Your task to perform on an android device: Go to network settings Image 0: 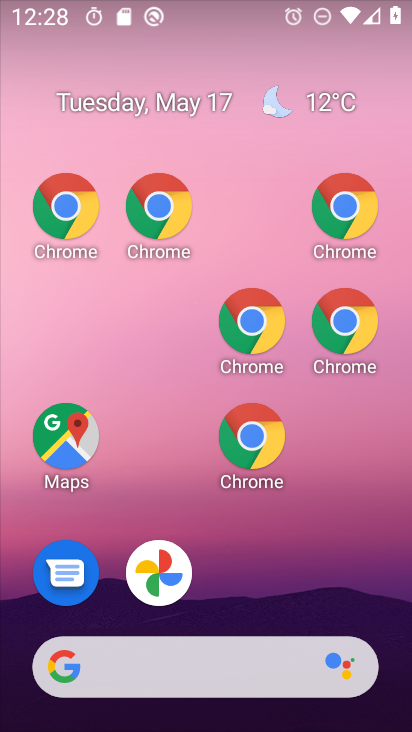
Step 0: click (238, 312)
Your task to perform on an android device: Go to network settings Image 1: 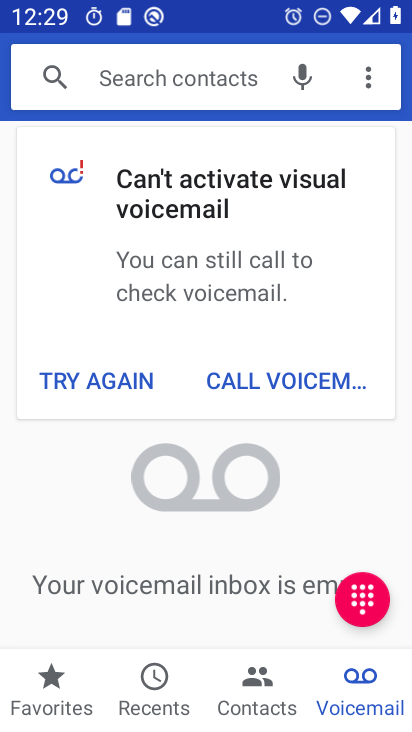
Step 1: press back button
Your task to perform on an android device: Go to network settings Image 2: 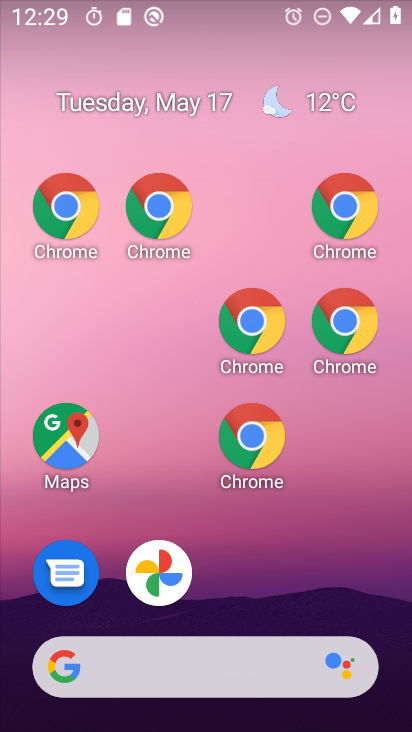
Step 2: drag from (262, 676) to (271, 220)
Your task to perform on an android device: Go to network settings Image 3: 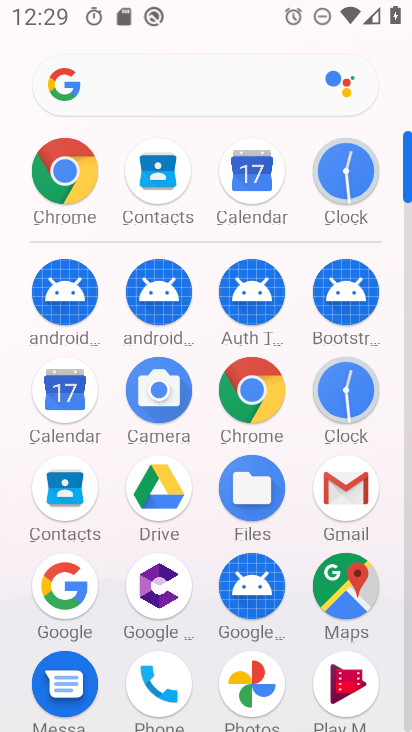
Step 3: drag from (266, 617) to (325, 438)
Your task to perform on an android device: Go to network settings Image 4: 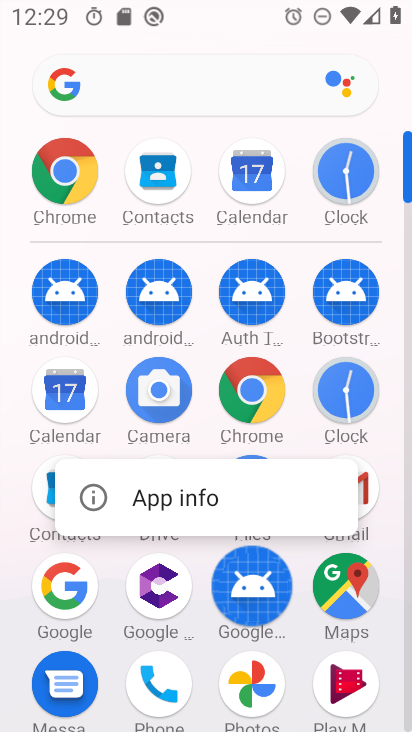
Step 4: drag from (290, 542) to (328, 320)
Your task to perform on an android device: Go to network settings Image 5: 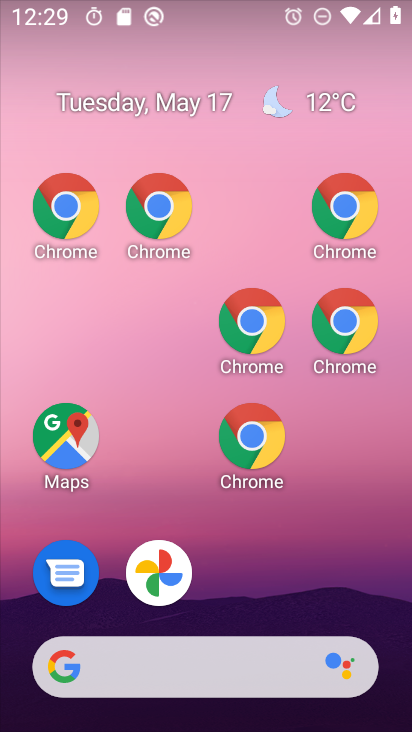
Step 5: drag from (298, 627) to (316, 139)
Your task to perform on an android device: Go to network settings Image 6: 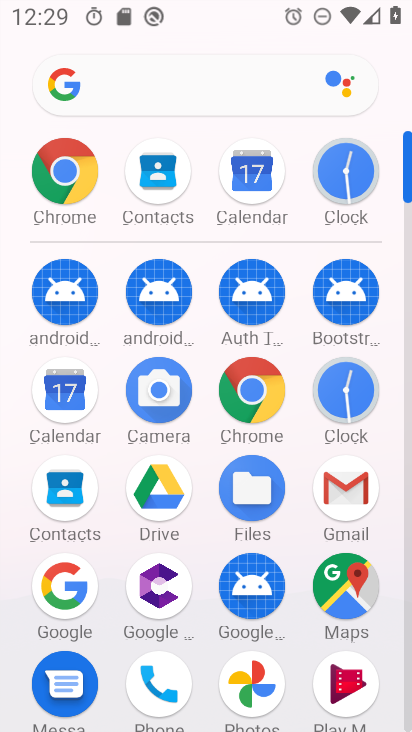
Step 6: drag from (300, 580) to (388, 230)
Your task to perform on an android device: Go to network settings Image 7: 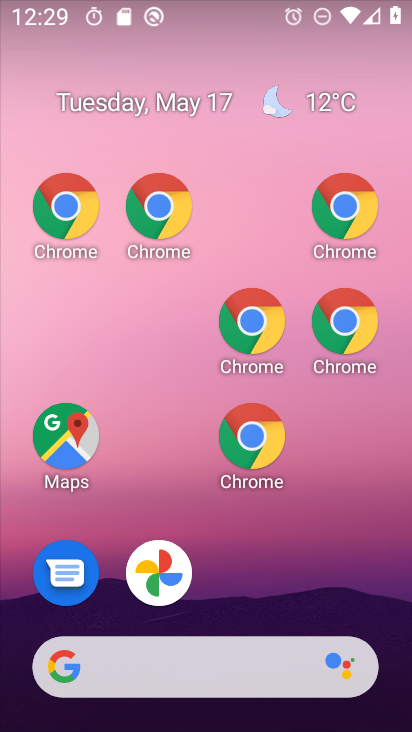
Step 7: drag from (304, 644) to (273, 178)
Your task to perform on an android device: Go to network settings Image 8: 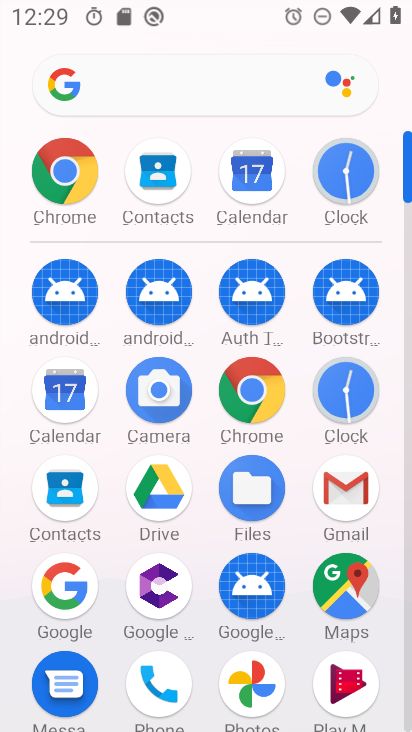
Step 8: drag from (254, 589) to (303, 91)
Your task to perform on an android device: Go to network settings Image 9: 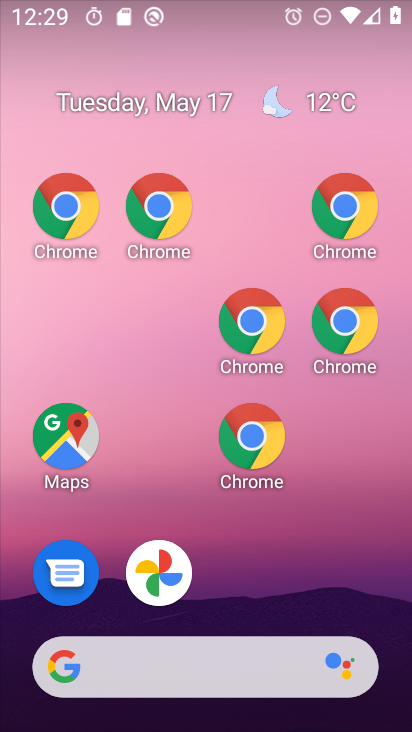
Step 9: drag from (276, 638) to (294, 185)
Your task to perform on an android device: Go to network settings Image 10: 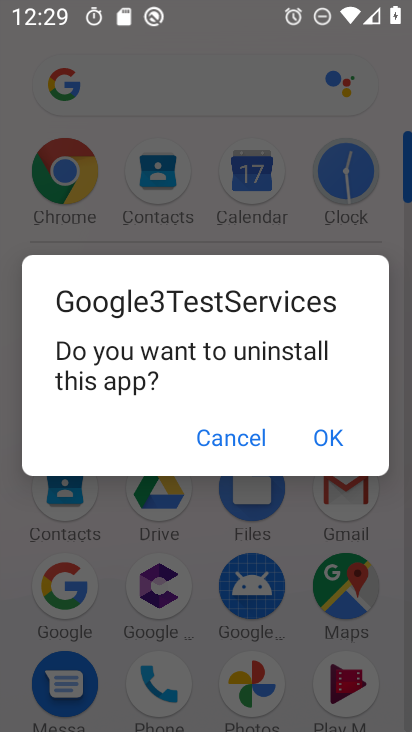
Step 10: drag from (256, 617) to (300, 180)
Your task to perform on an android device: Go to network settings Image 11: 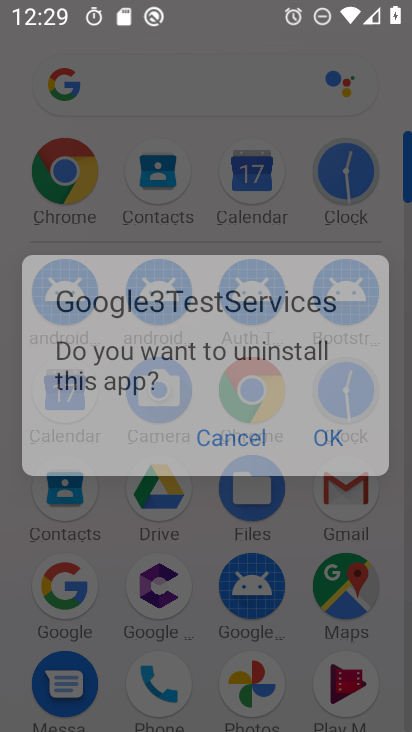
Step 11: drag from (356, 603) to (408, 152)
Your task to perform on an android device: Go to network settings Image 12: 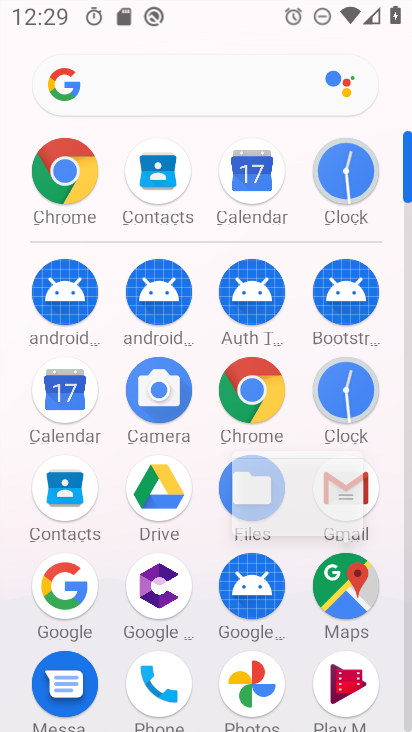
Step 12: drag from (376, 535) to (411, 499)
Your task to perform on an android device: Go to network settings Image 13: 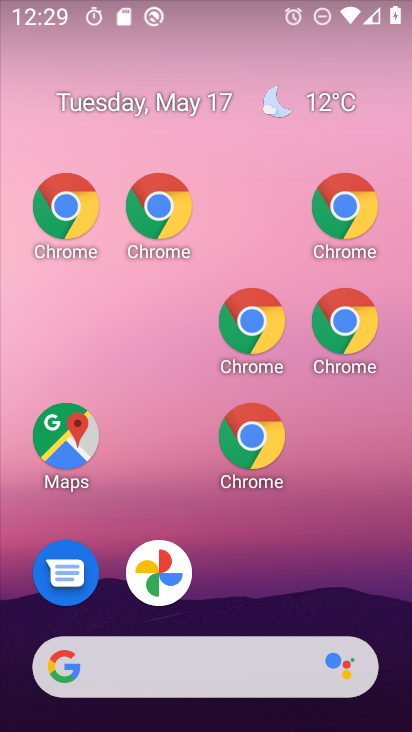
Step 13: drag from (362, 622) to (256, 149)
Your task to perform on an android device: Go to network settings Image 14: 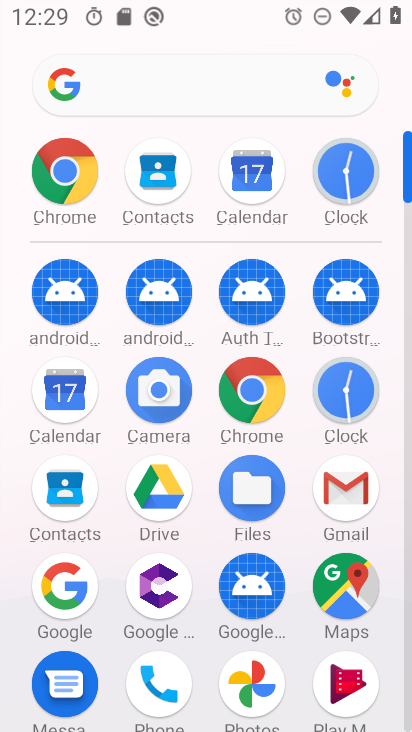
Step 14: click (401, 357)
Your task to perform on an android device: Go to network settings Image 15: 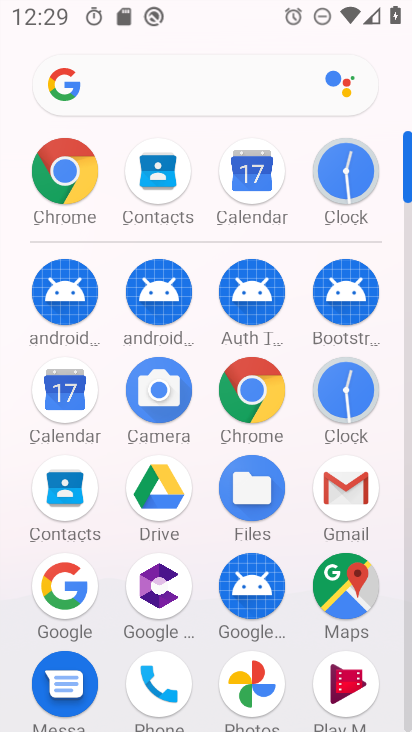
Step 15: drag from (401, 357) to (400, 662)
Your task to perform on an android device: Go to network settings Image 16: 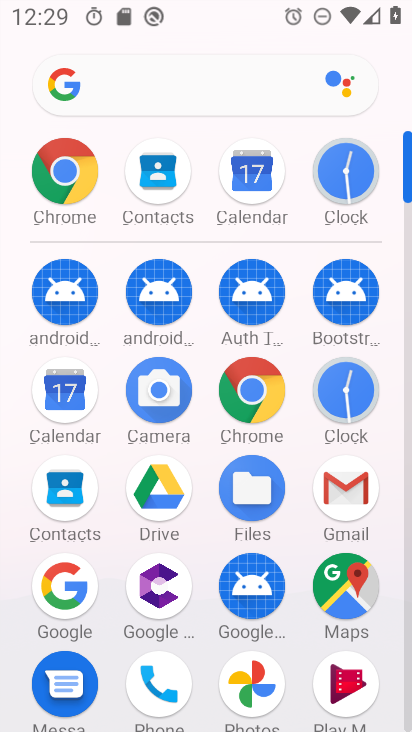
Step 16: drag from (205, 640) to (203, 205)
Your task to perform on an android device: Go to network settings Image 17: 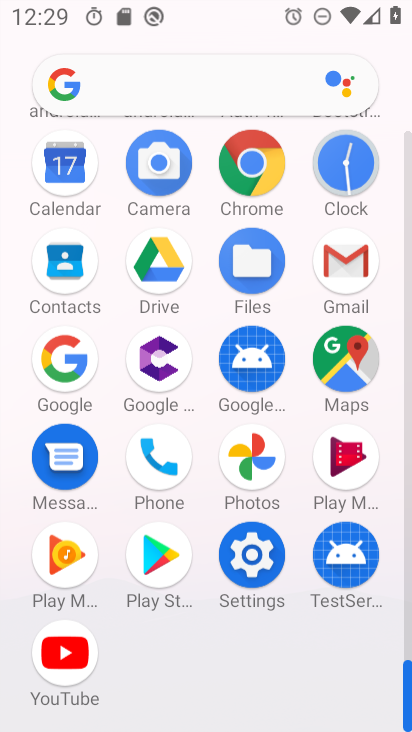
Step 17: drag from (172, 469) to (219, 97)
Your task to perform on an android device: Go to network settings Image 18: 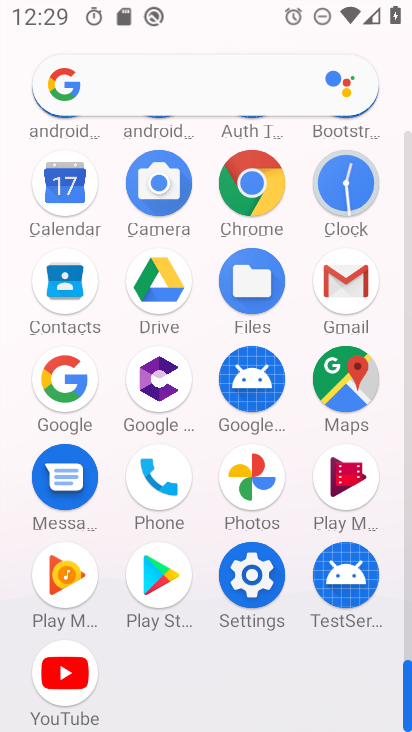
Step 18: click (232, 576)
Your task to perform on an android device: Go to network settings Image 19: 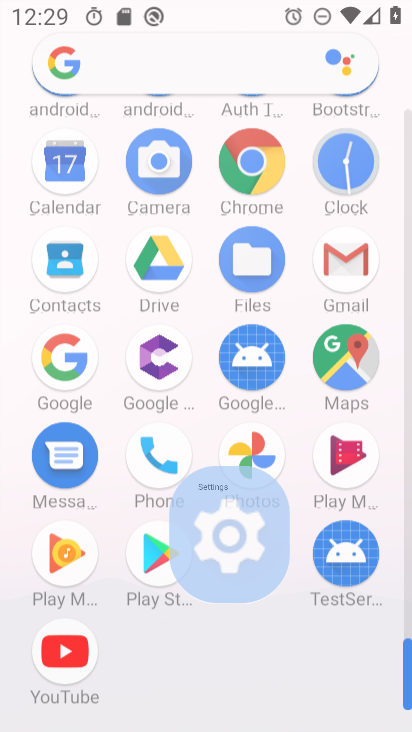
Step 19: click (265, 564)
Your task to perform on an android device: Go to network settings Image 20: 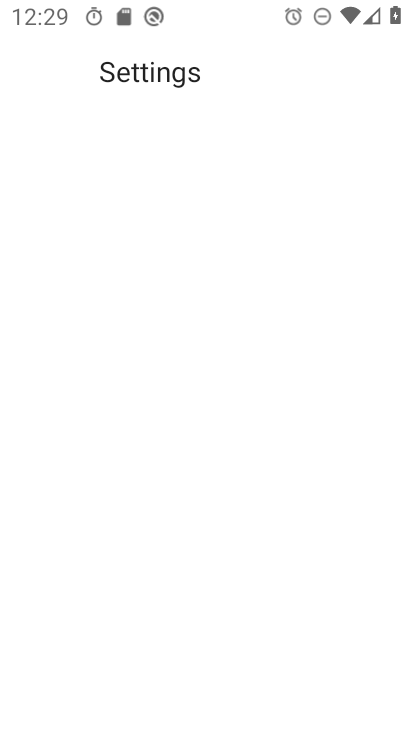
Step 20: click (267, 562)
Your task to perform on an android device: Go to network settings Image 21: 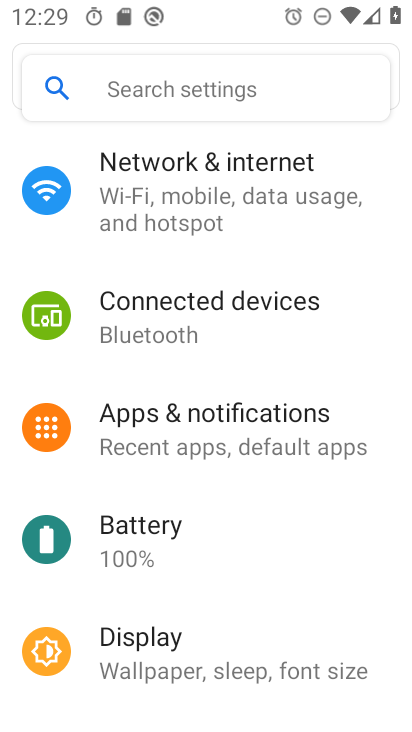
Step 21: click (204, 205)
Your task to perform on an android device: Go to network settings Image 22: 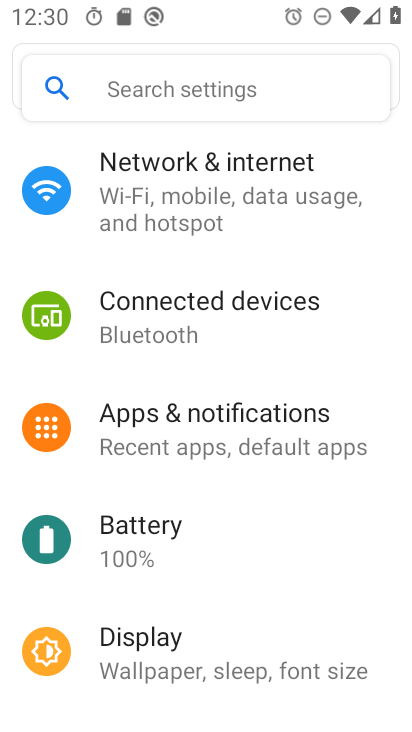
Step 22: click (224, 239)
Your task to perform on an android device: Go to network settings Image 23: 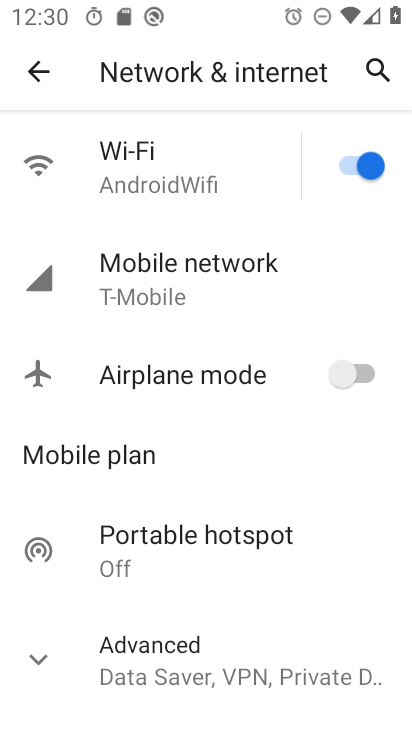
Step 23: click (135, 285)
Your task to perform on an android device: Go to network settings Image 24: 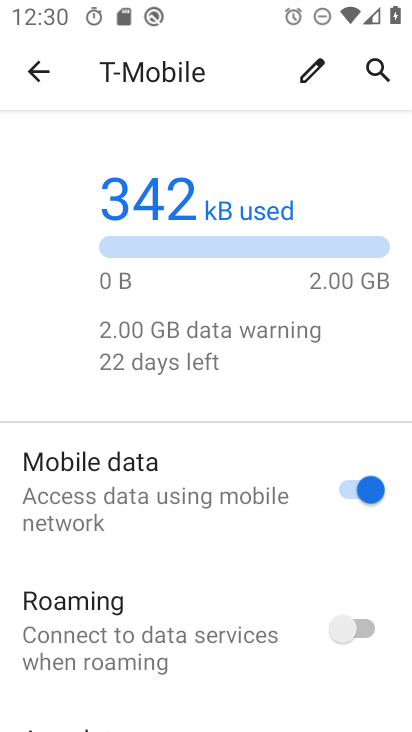
Step 24: task complete